Your task to perform on an android device: turn on airplane mode Image 0: 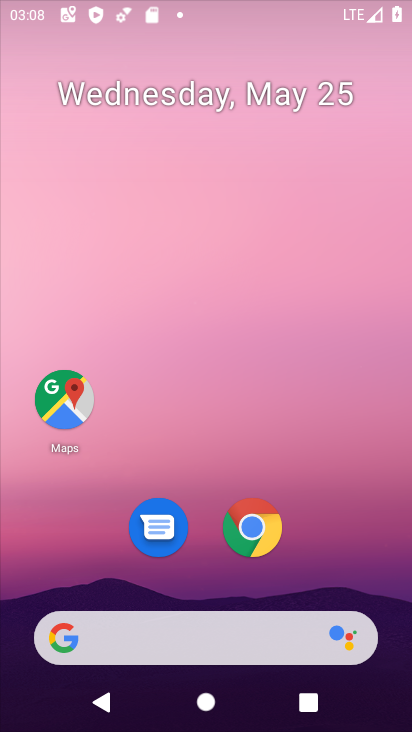
Step 0: drag from (263, 535) to (272, 5)
Your task to perform on an android device: turn on airplane mode Image 1: 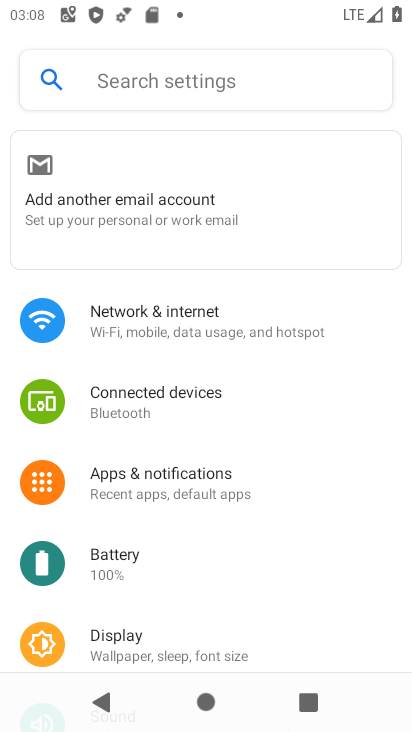
Step 1: click (147, 319)
Your task to perform on an android device: turn on airplane mode Image 2: 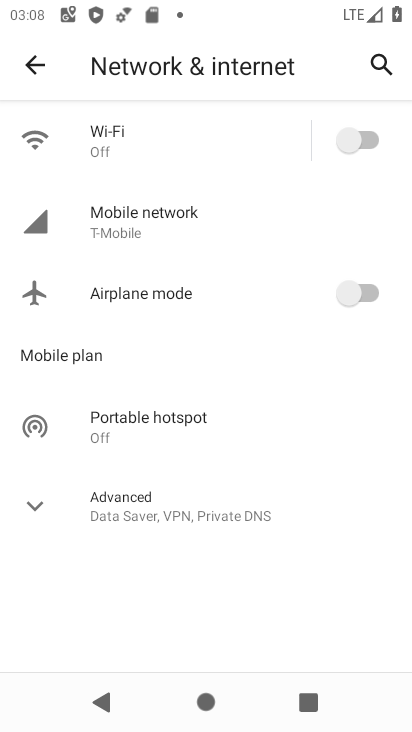
Step 2: click (252, 286)
Your task to perform on an android device: turn on airplane mode Image 3: 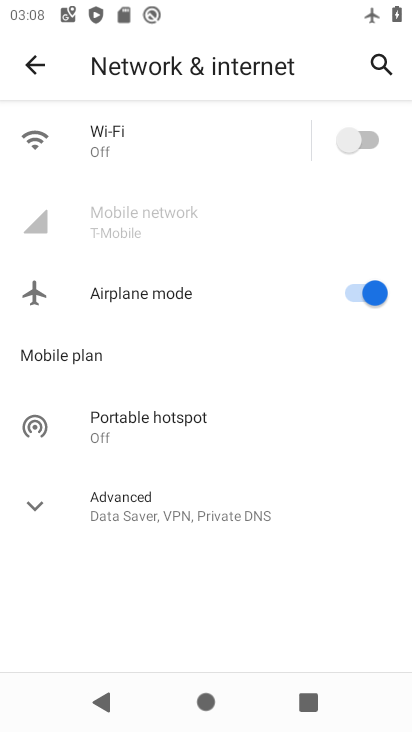
Step 3: task complete